Your task to perform on an android device: Add "alienware area 51" to the cart on costco, then select checkout. Image 0: 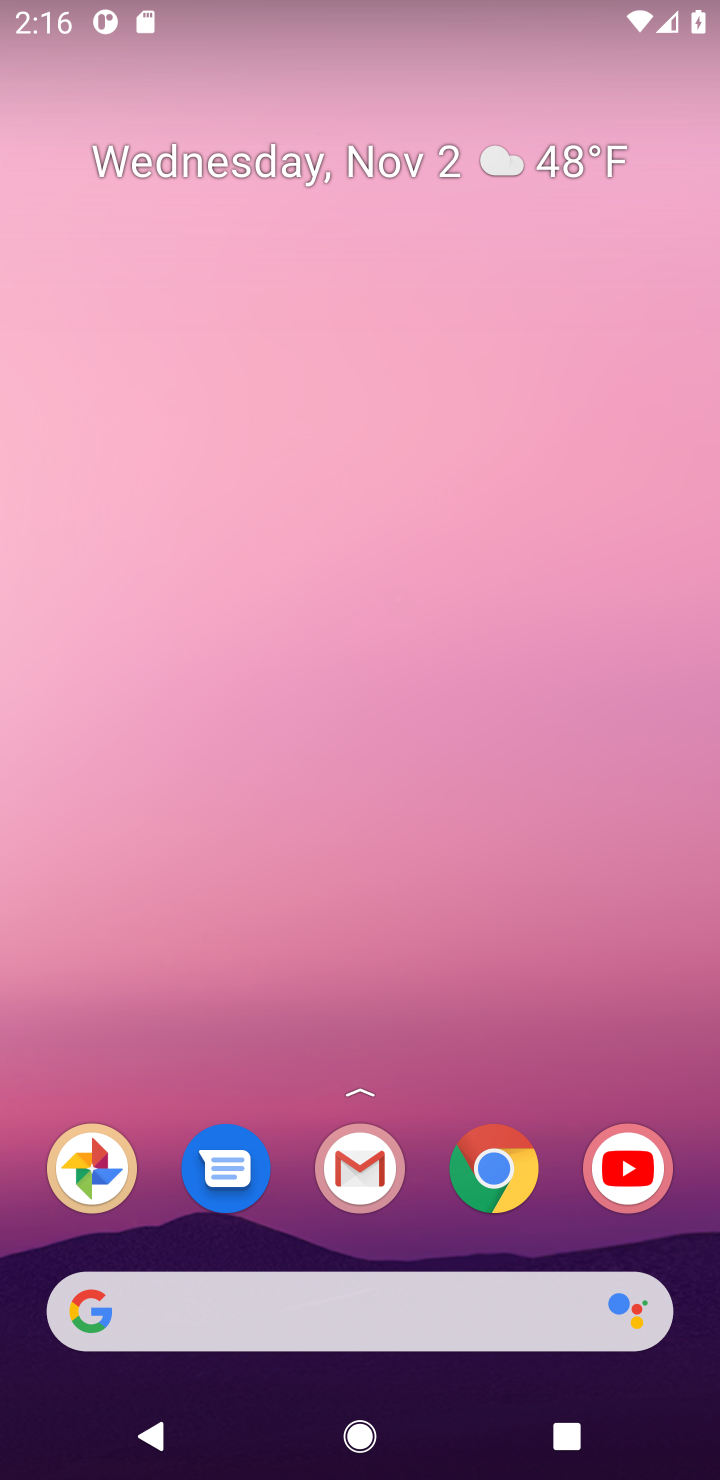
Step 0: drag from (371, 1128) to (441, 148)
Your task to perform on an android device: Add "alienware area 51" to the cart on costco, then select checkout. Image 1: 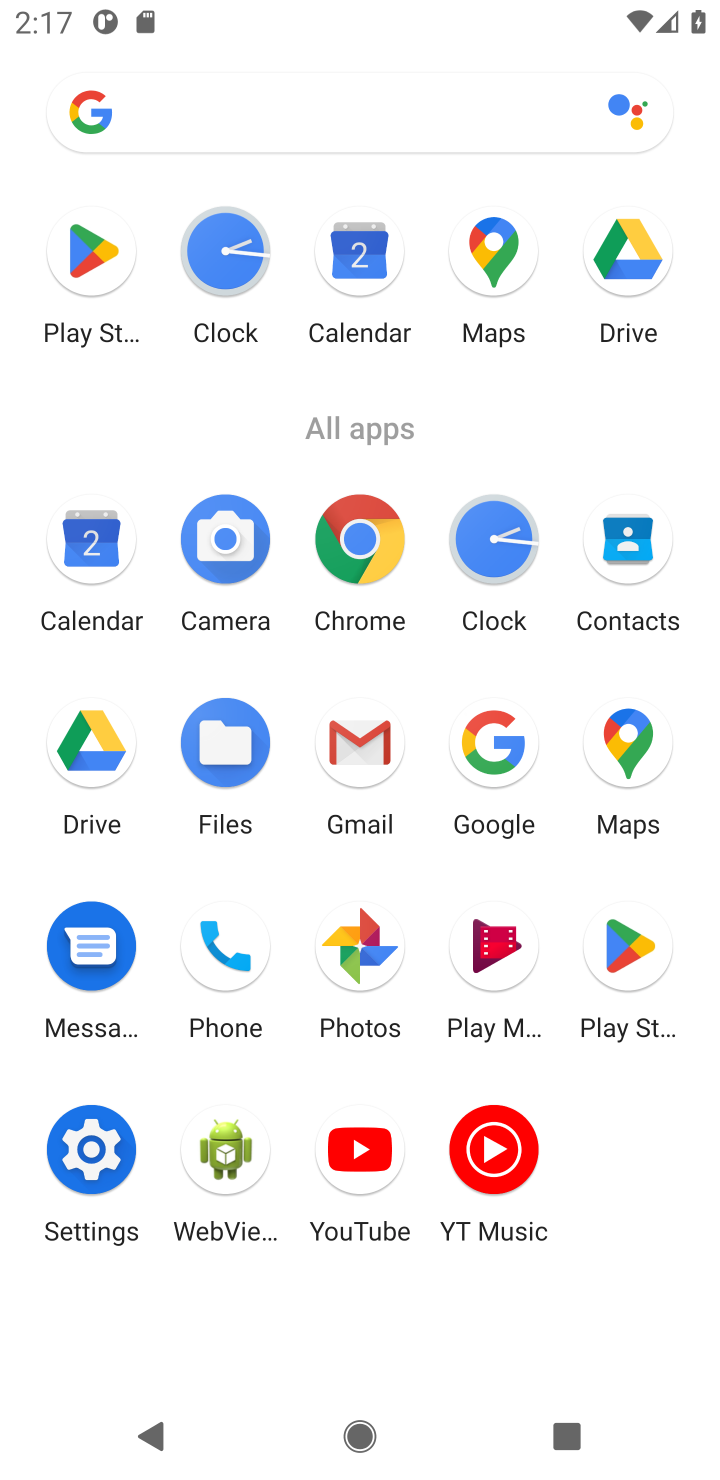
Step 1: click (487, 736)
Your task to perform on an android device: Add "alienware area 51" to the cart on costco, then select checkout. Image 2: 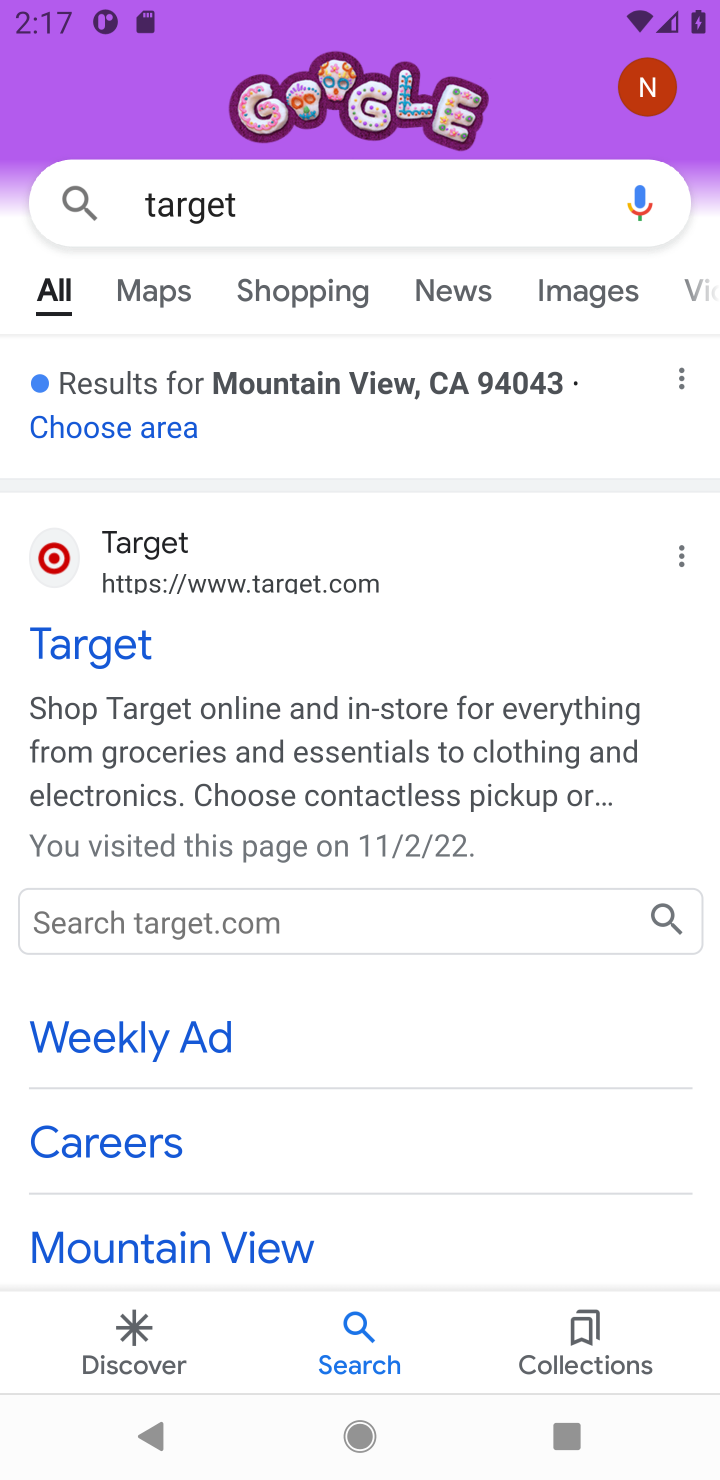
Step 2: click (424, 193)
Your task to perform on an android device: Add "alienware area 51" to the cart on costco, then select checkout. Image 3: 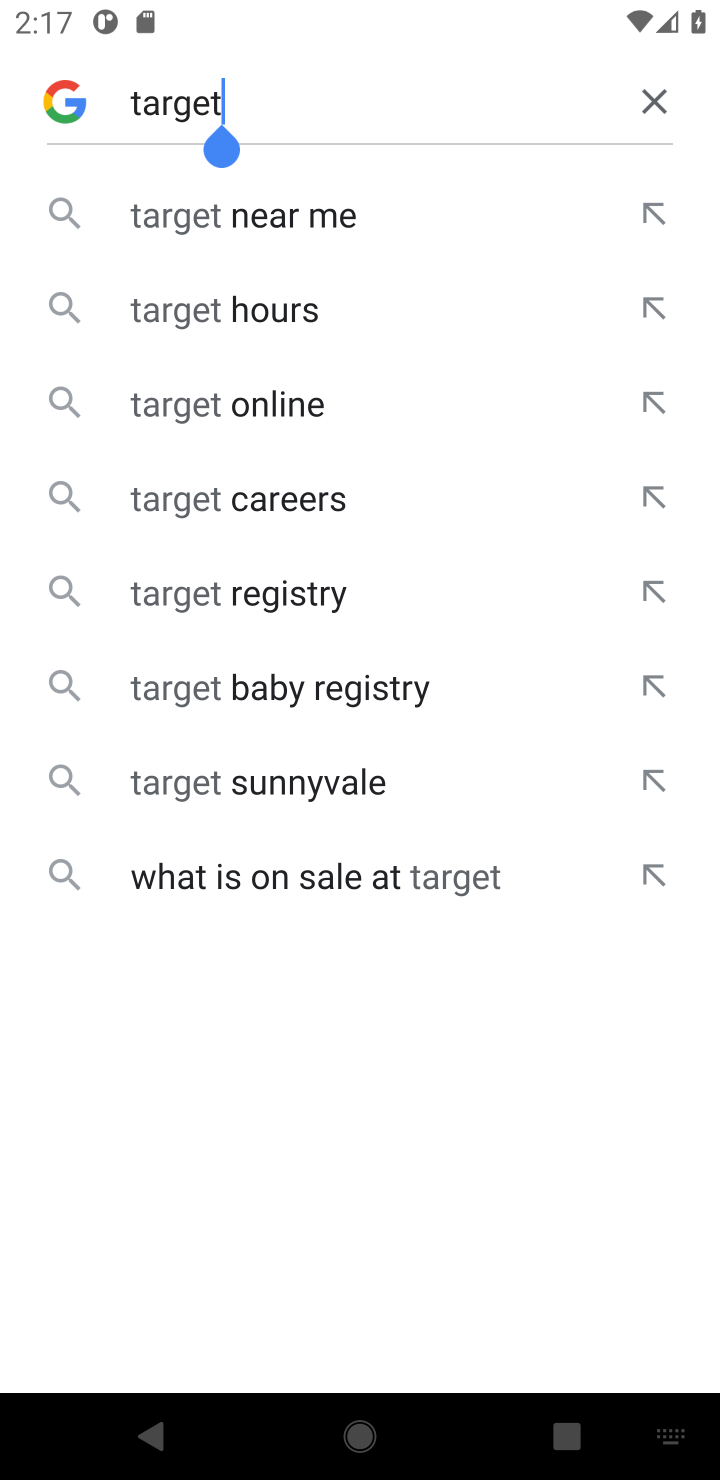
Step 3: click (661, 96)
Your task to perform on an android device: Add "alienware area 51" to the cart on costco, then select checkout. Image 4: 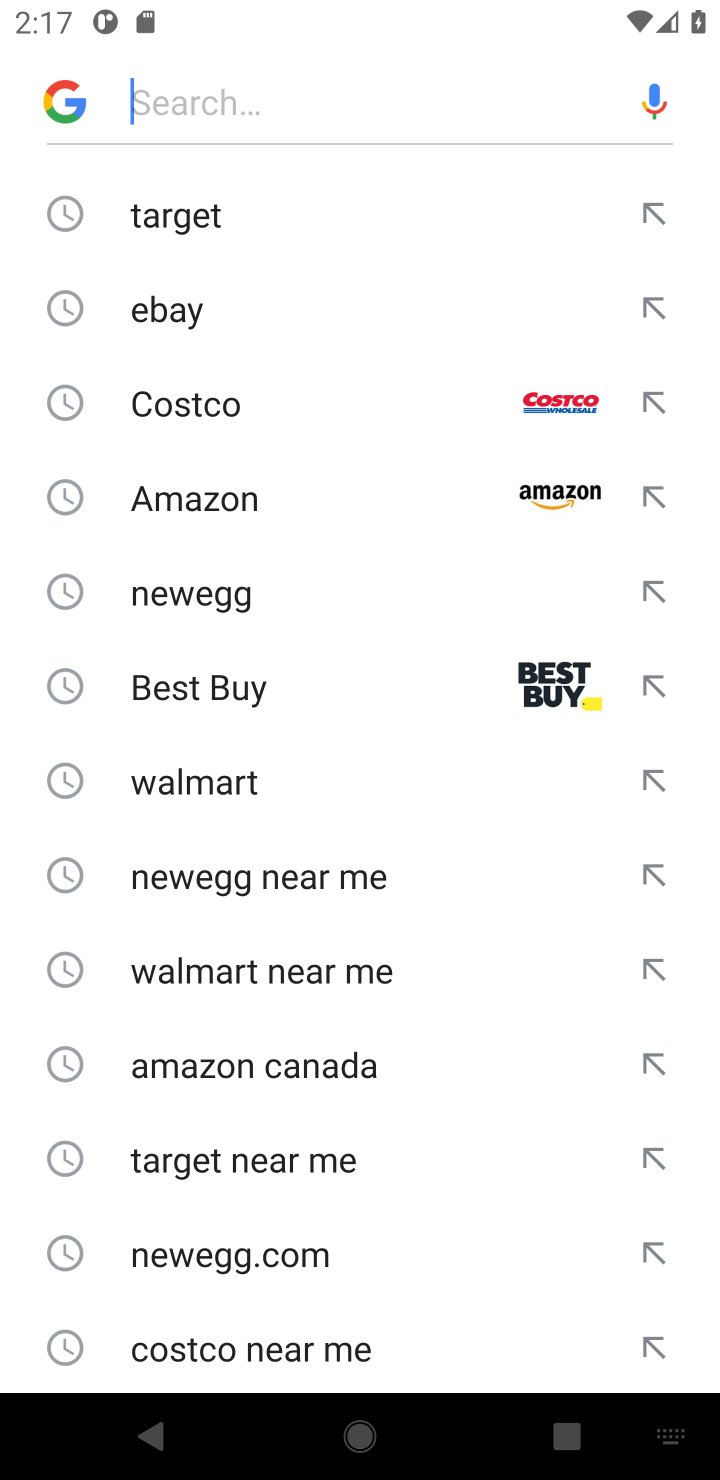
Step 4: click (405, 405)
Your task to perform on an android device: Add "alienware area 51" to the cart on costco, then select checkout. Image 5: 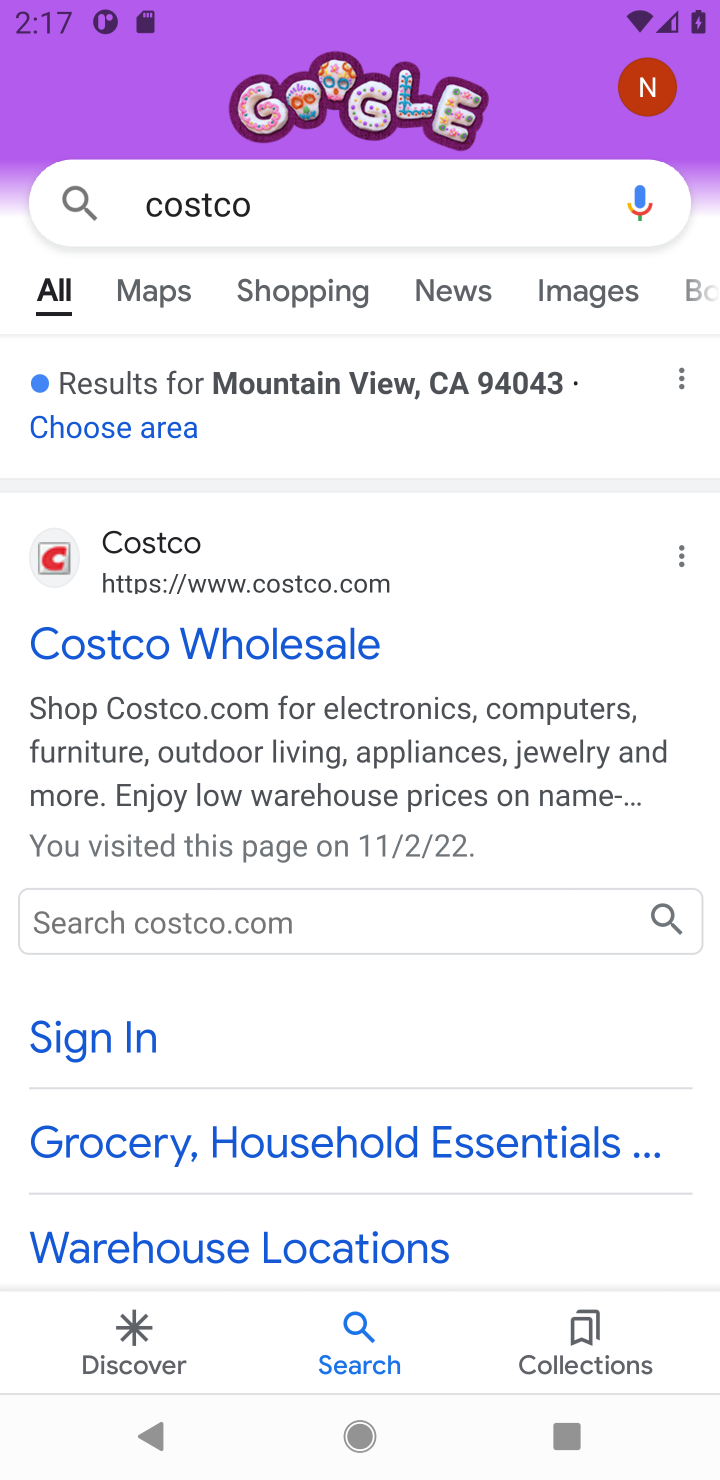
Step 5: click (154, 544)
Your task to perform on an android device: Add "alienware area 51" to the cart on costco, then select checkout. Image 6: 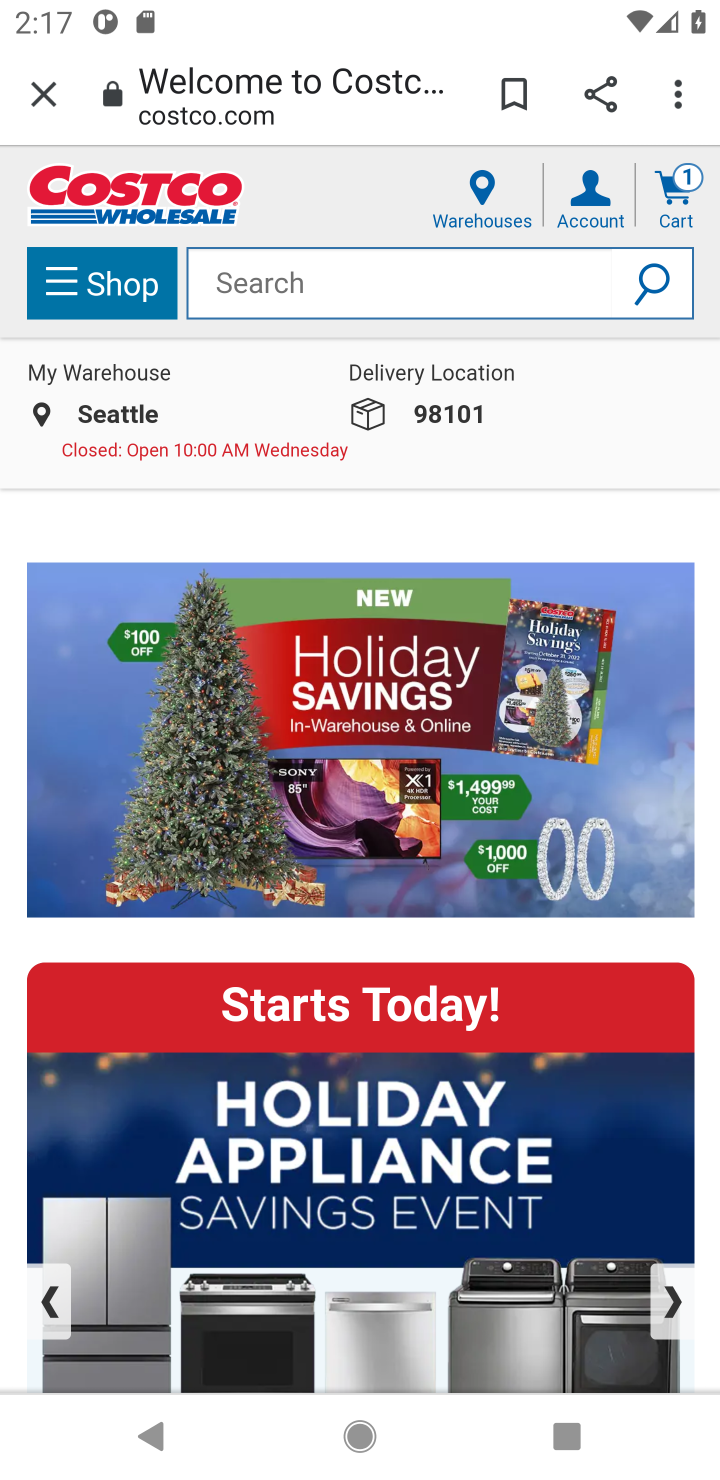
Step 6: click (442, 288)
Your task to perform on an android device: Add "alienware area 51" to the cart on costco, then select checkout. Image 7: 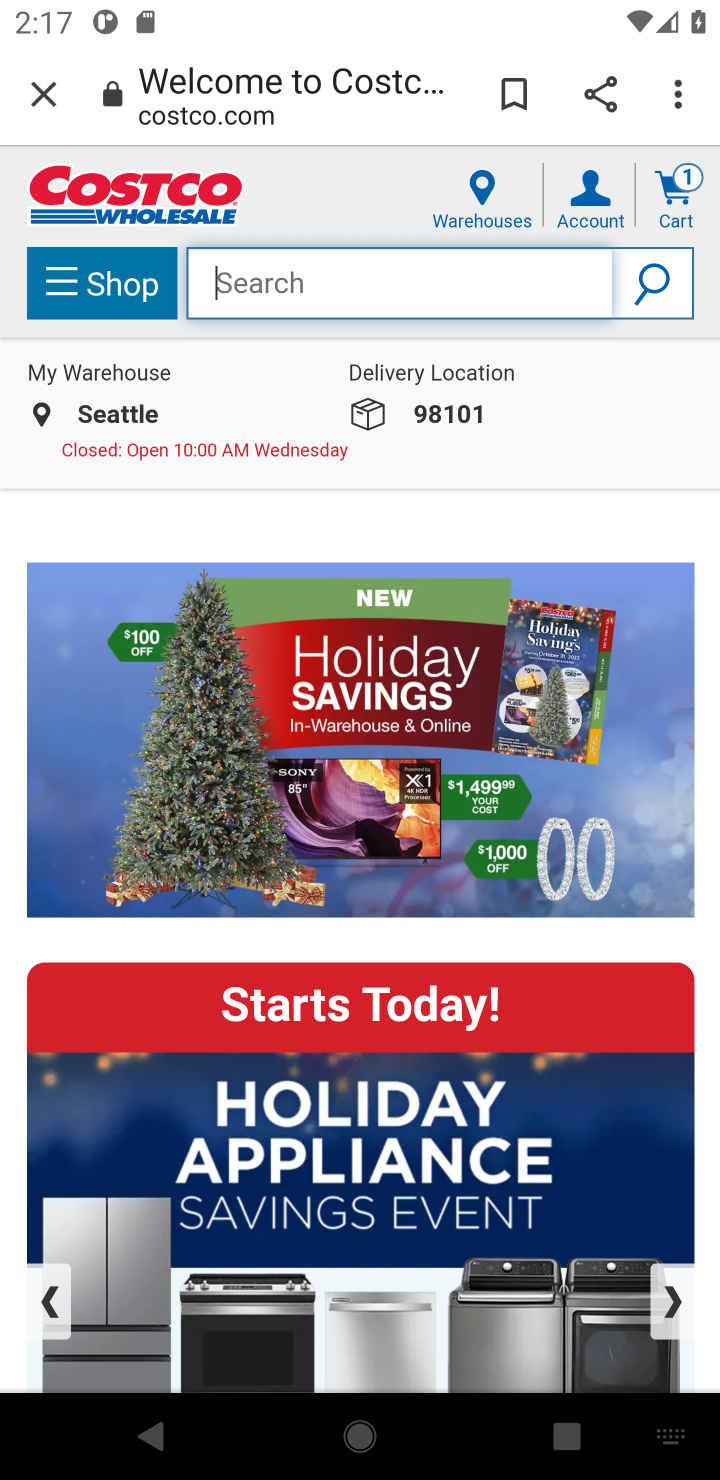
Step 7: click (579, 289)
Your task to perform on an android device: Add "alienware area 51" to the cart on costco, then select checkout. Image 8: 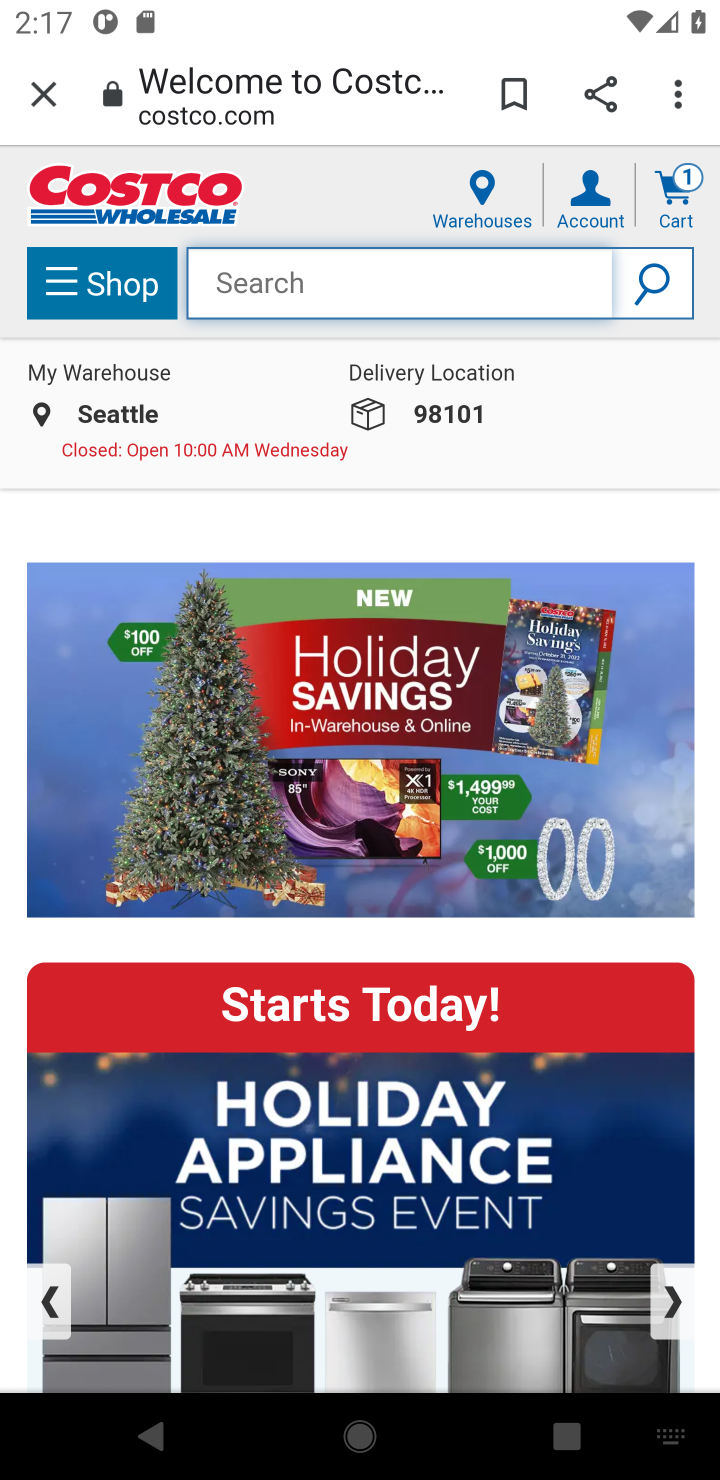
Step 8: type "alienware area 51"
Your task to perform on an android device: Add "alienware area 51" to the cart on costco, then select checkout. Image 9: 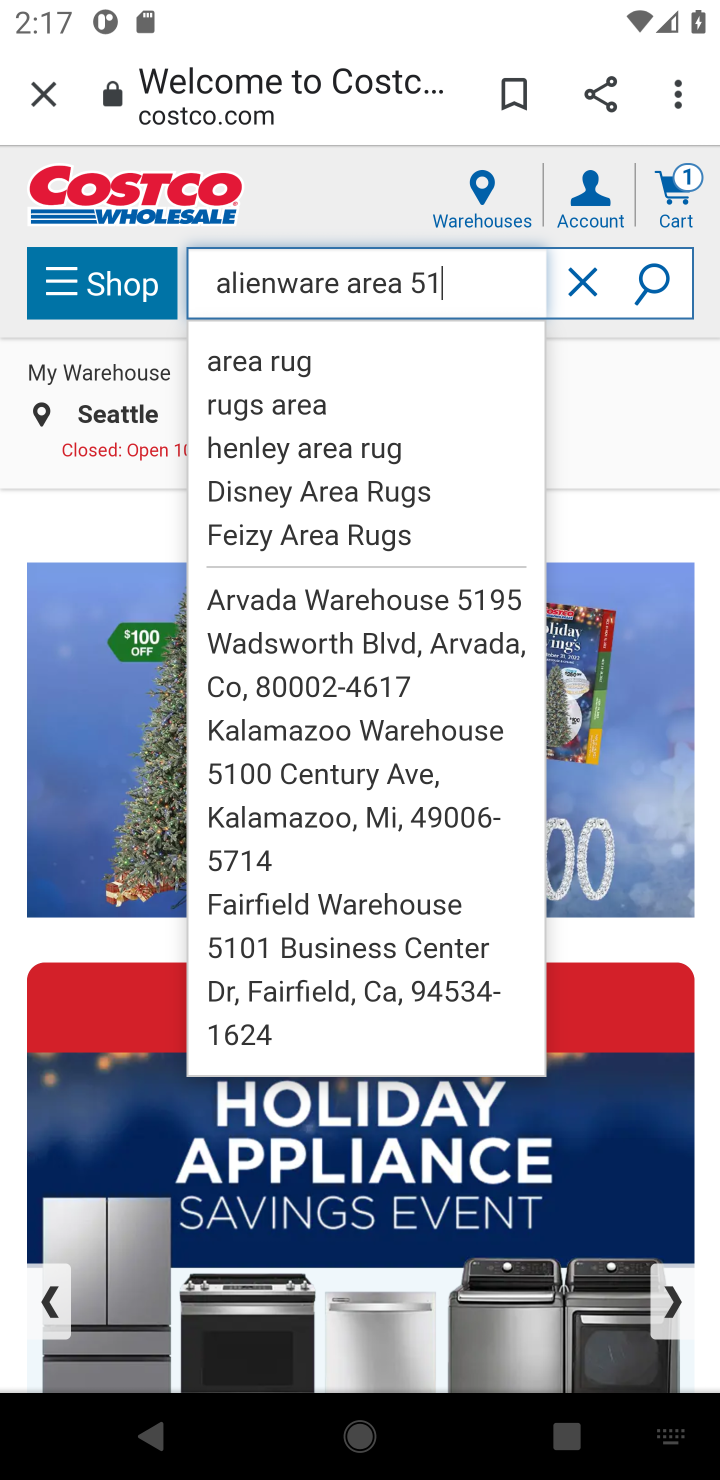
Step 9: click (661, 299)
Your task to perform on an android device: Add "alienware area 51" to the cart on costco, then select checkout. Image 10: 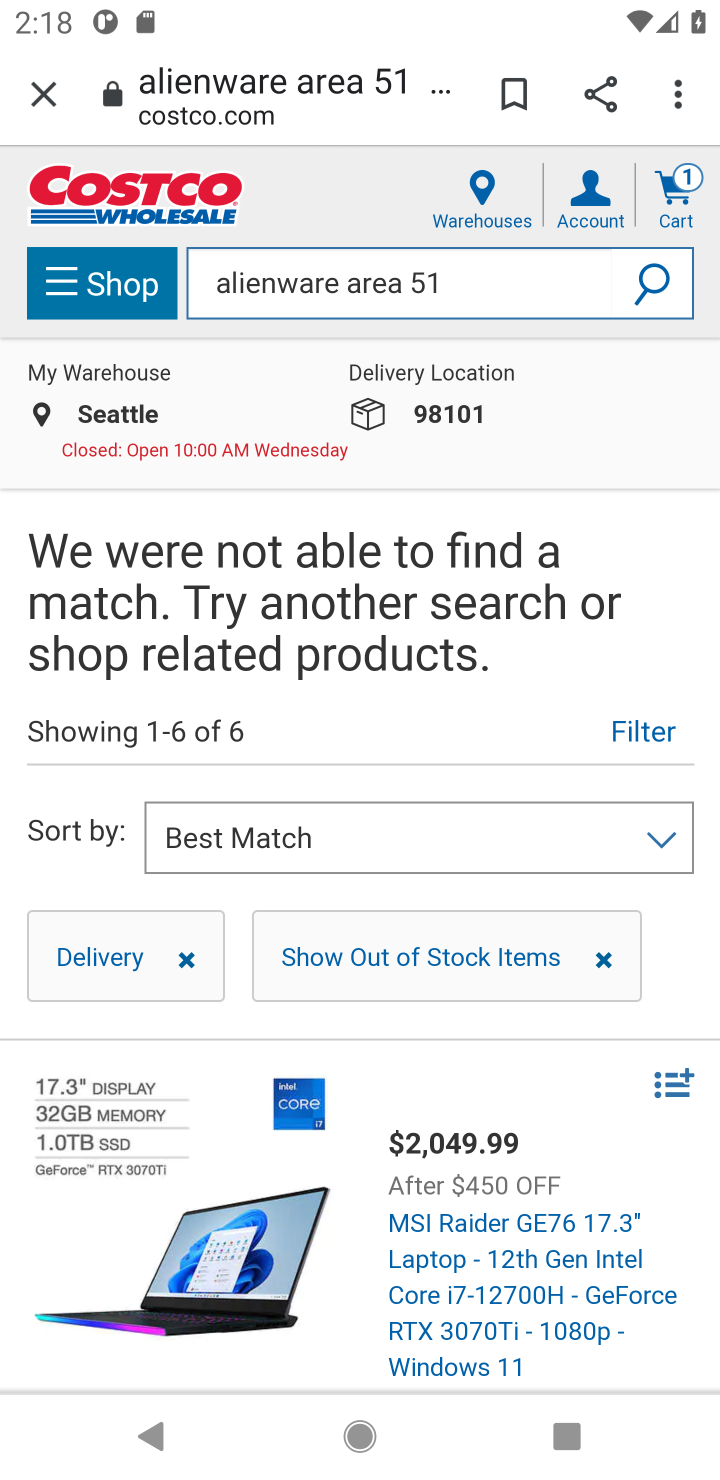
Step 10: click (569, 1261)
Your task to perform on an android device: Add "alienware area 51" to the cart on costco, then select checkout. Image 11: 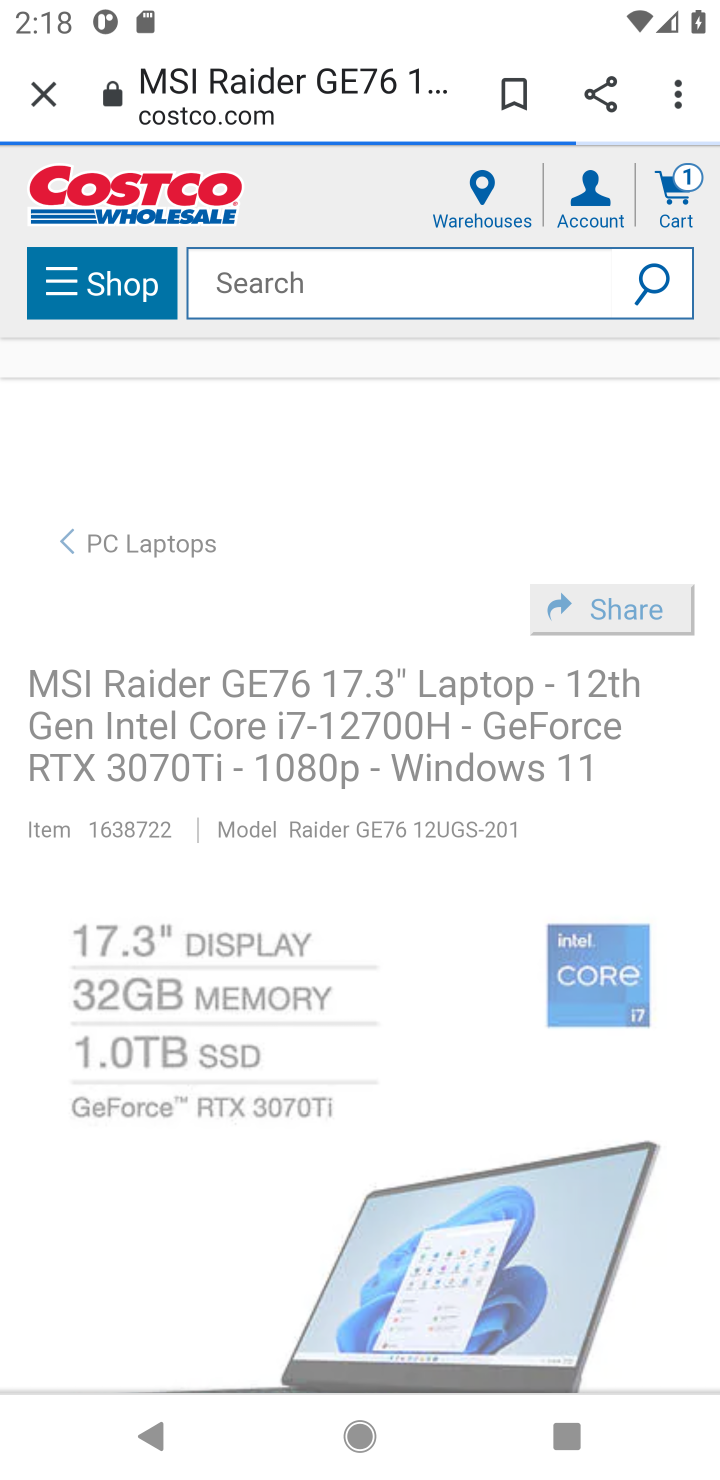
Step 11: drag from (447, 1201) to (463, 793)
Your task to perform on an android device: Add "alienware area 51" to the cart on costco, then select checkout. Image 12: 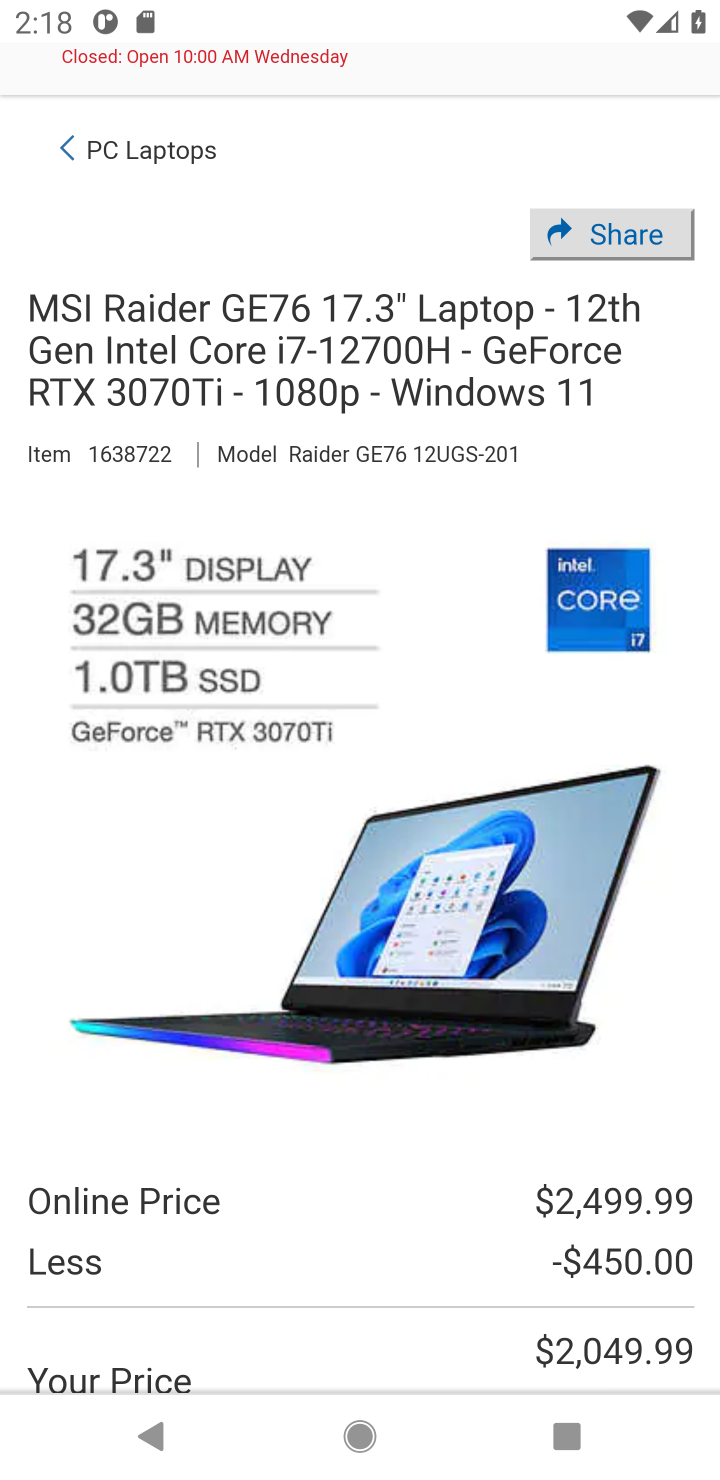
Step 12: drag from (428, 1105) to (428, 683)
Your task to perform on an android device: Add "alienware area 51" to the cart on costco, then select checkout. Image 13: 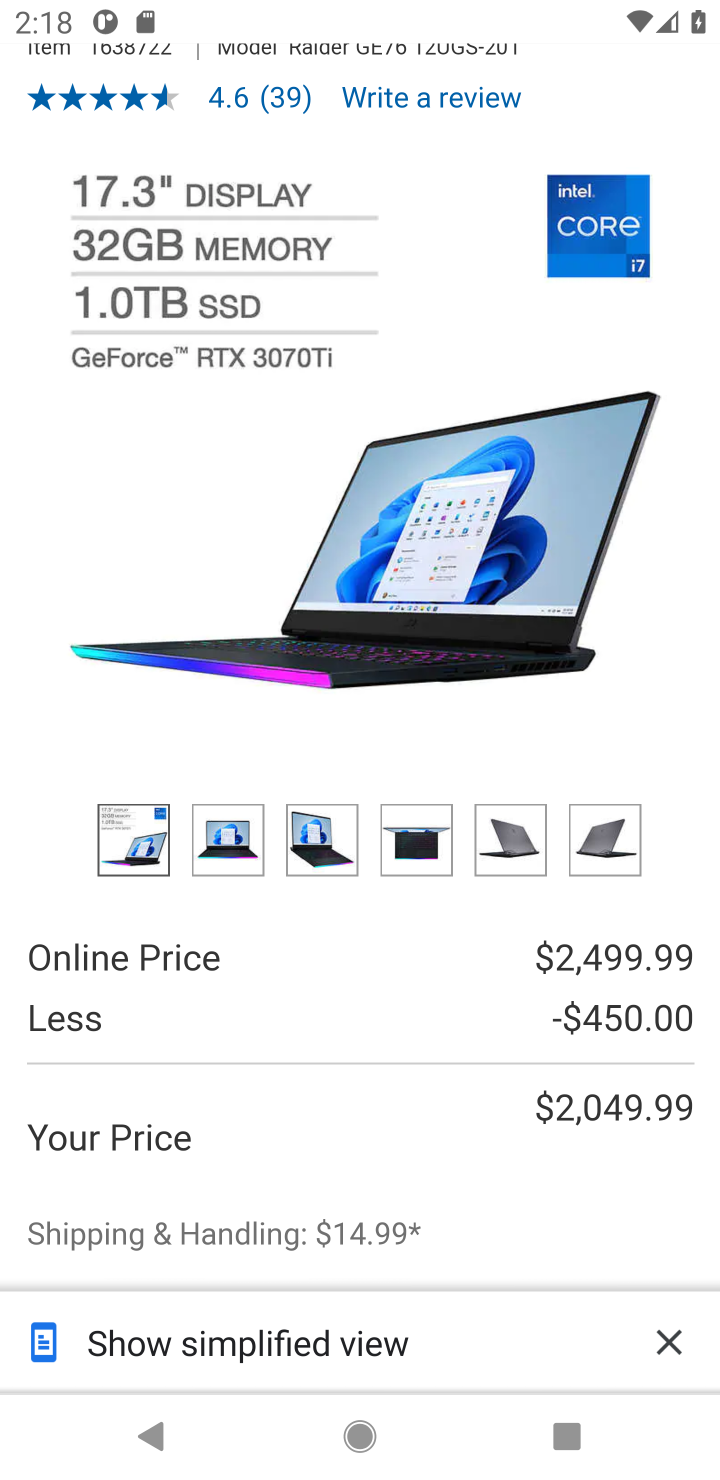
Step 13: drag from (274, 1111) to (285, 770)
Your task to perform on an android device: Add "alienware area 51" to the cart on costco, then select checkout. Image 14: 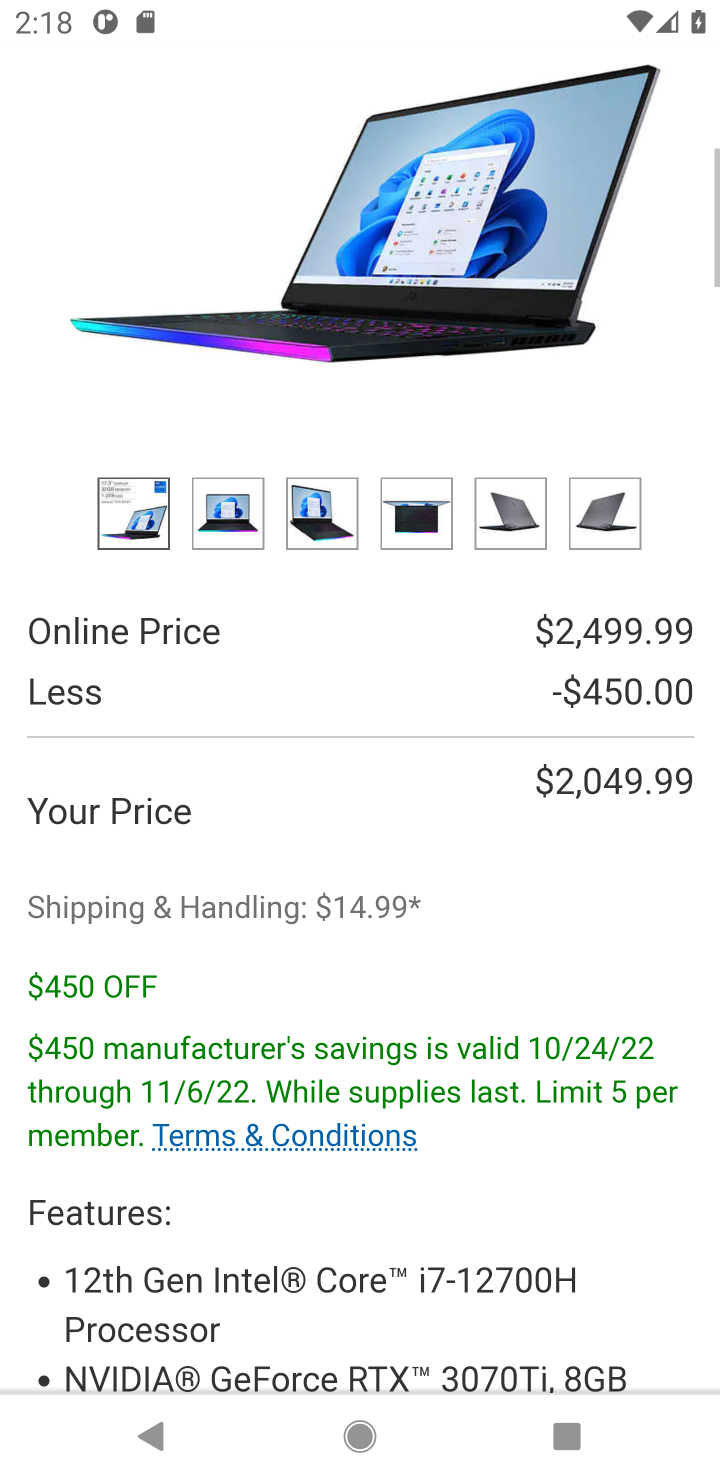
Step 14: click (334, 675)
Your task to perform on an android device: Add "alienware area 51" to the cart on costco, then select checkout. Image 15: 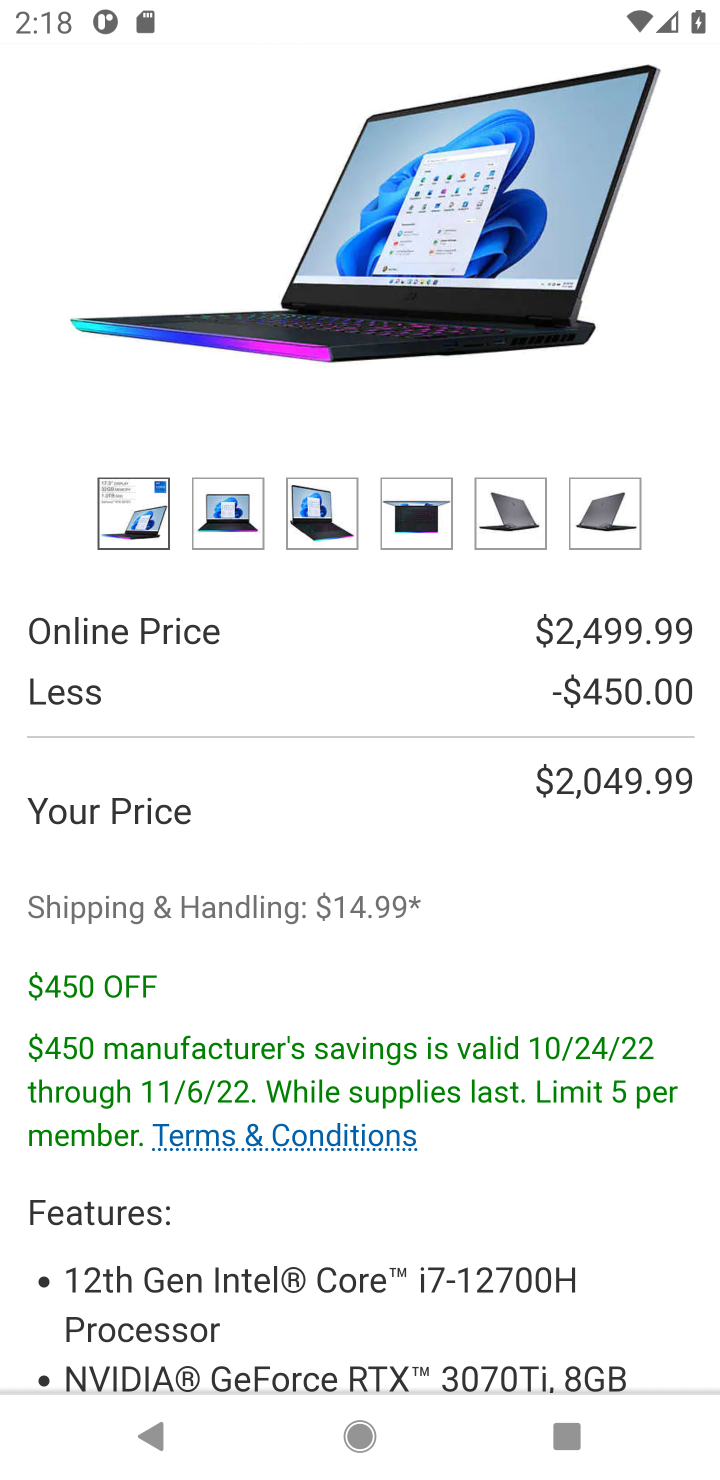
Step 15: drag from (338, 1151) to (393, 682)
Your task to perform on an android device: Add "alienware area 51" to the cart on costco, then select checkout. Image 16: 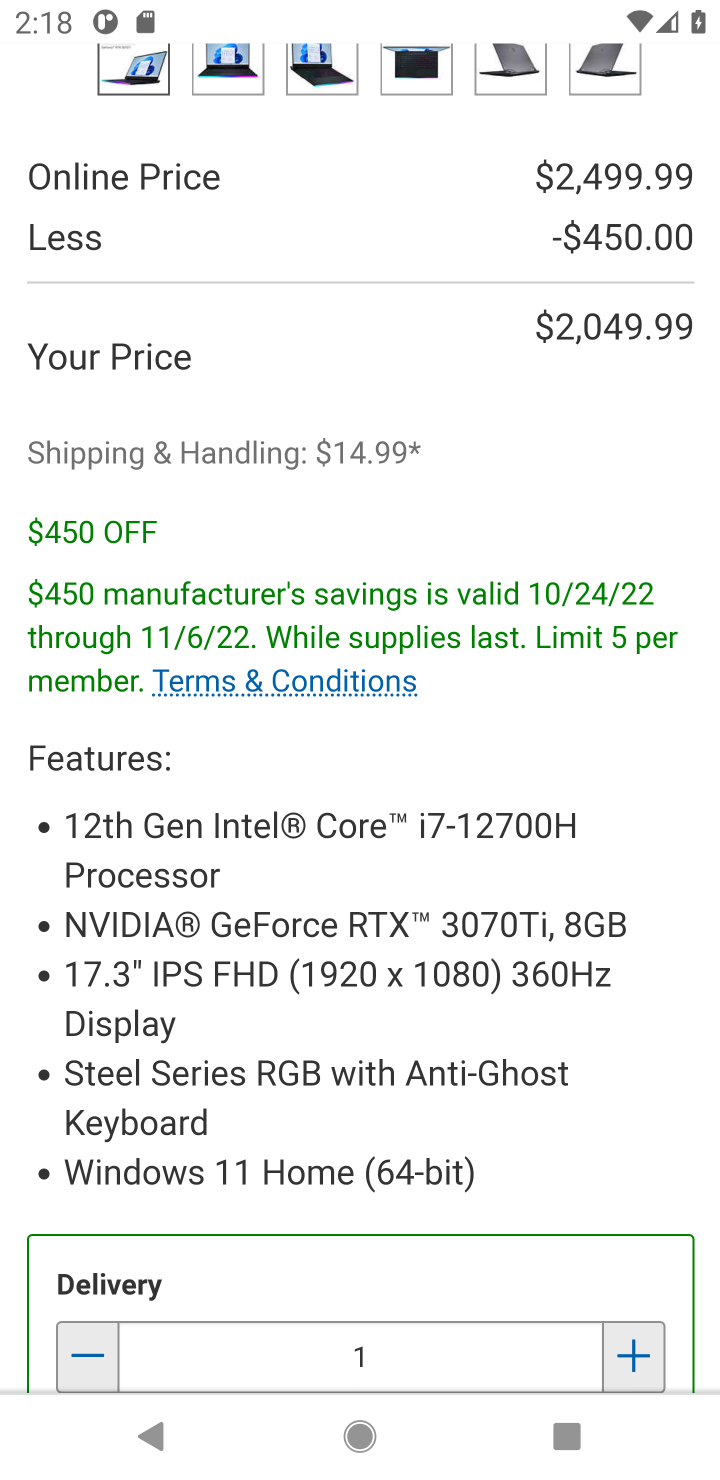
Step 16: drag from (477, 1098) to (477, 678)
Your task to perform on an android device: Add "alienware area 51" to the cart on costco, then select checkout. Image 17: 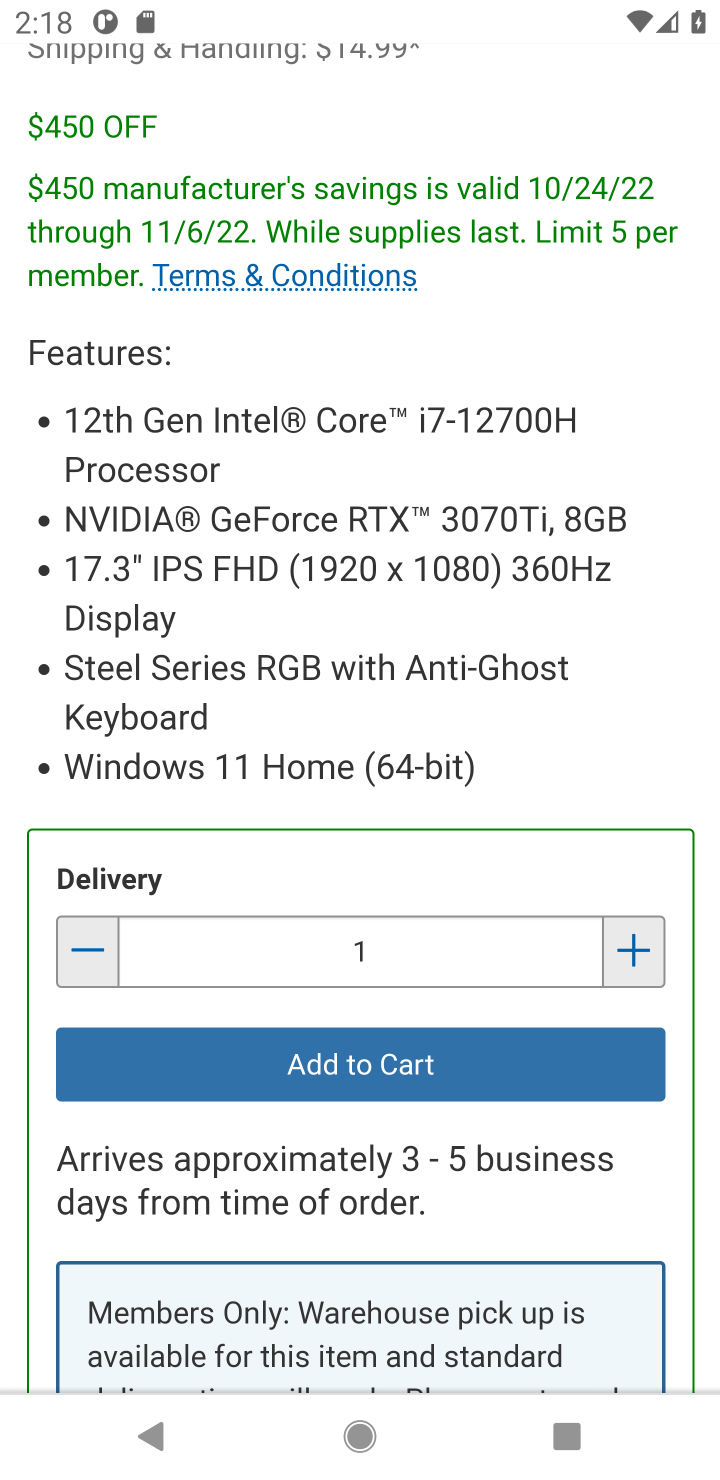
Step 17: click (348, 1184)
Your task to perform on an android device: Add "alienware area 51" to the cart on costco, then select checkout. Image 18: 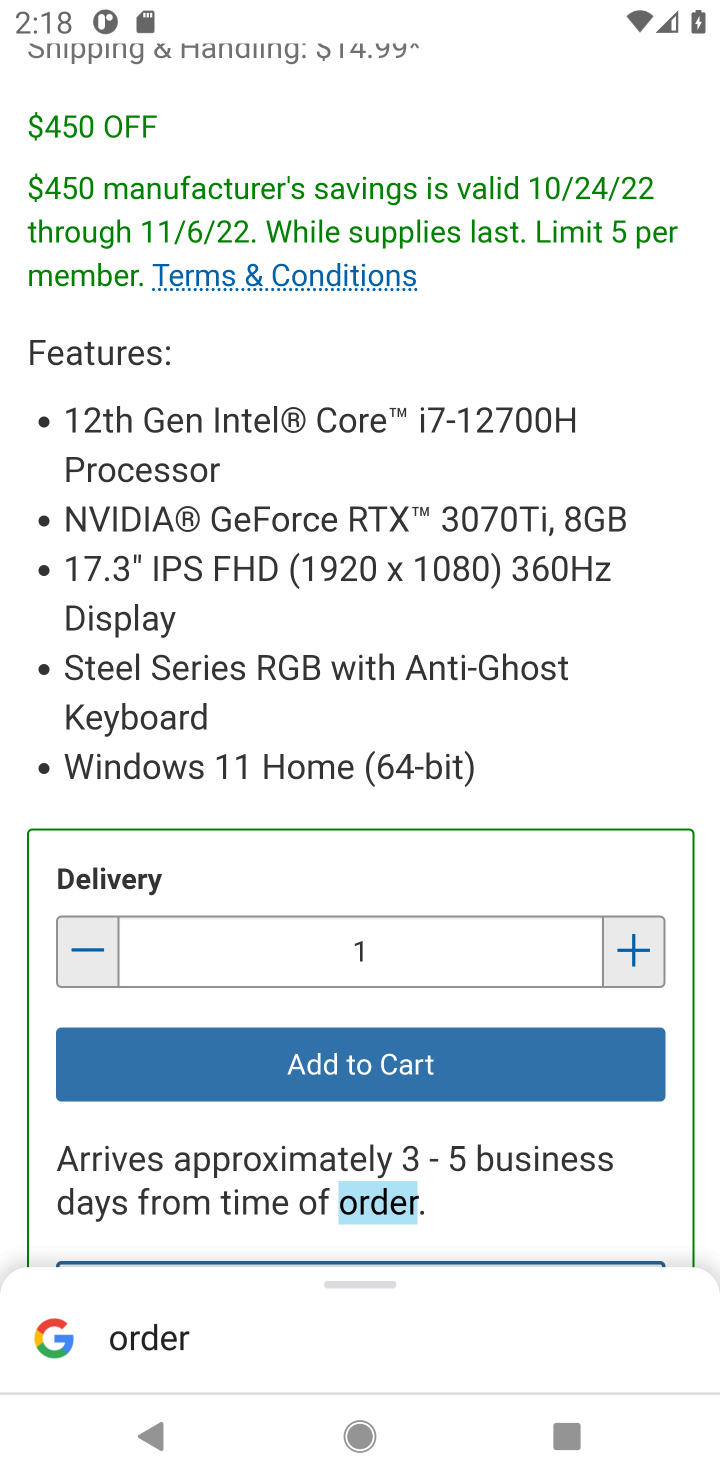
Step 18: click (350, 1057)
Your task to perform on an android device: Add "alienware area 51" to the cart on costco, then select checkout. Image 19: 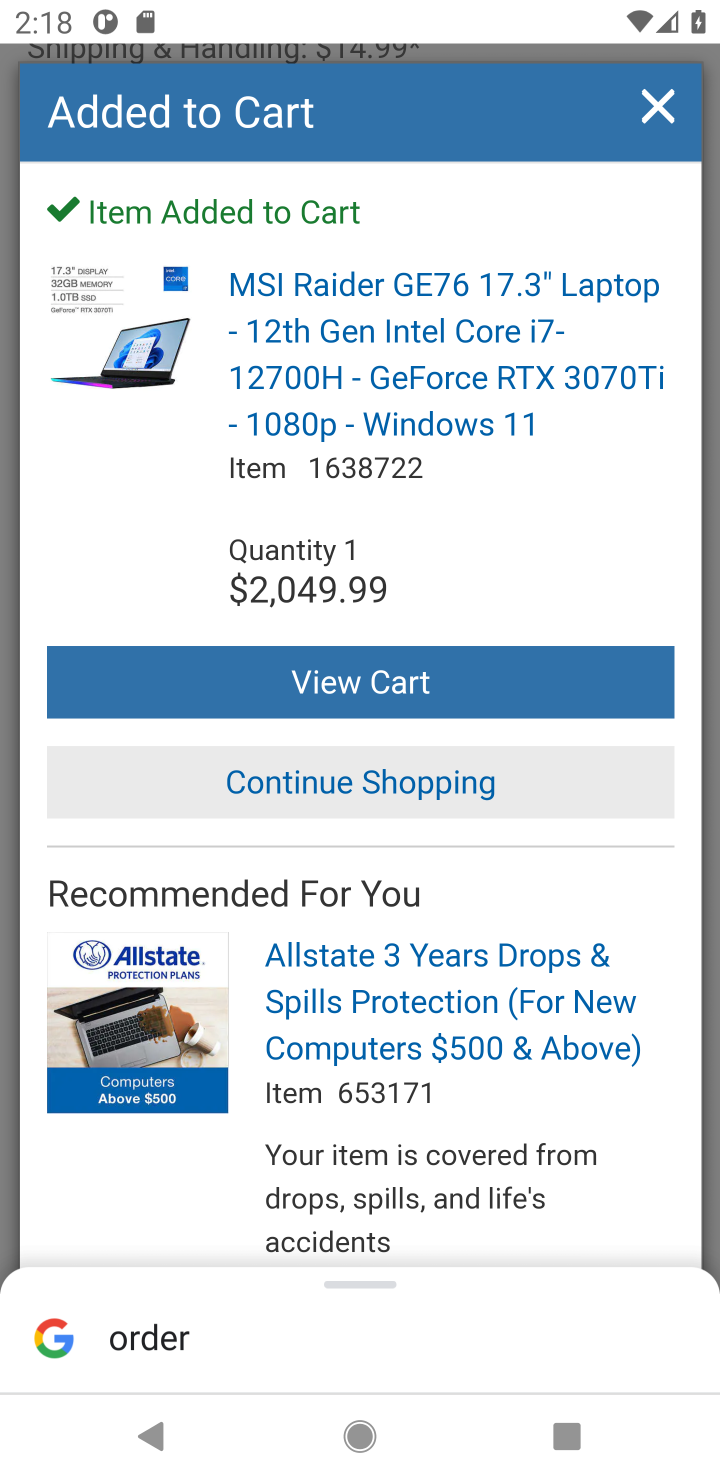
Step 19: click (368, 680)
Your task to perform on an android device: Add "alienware area 51" to the cart on costco, then select checkout. Image 20: 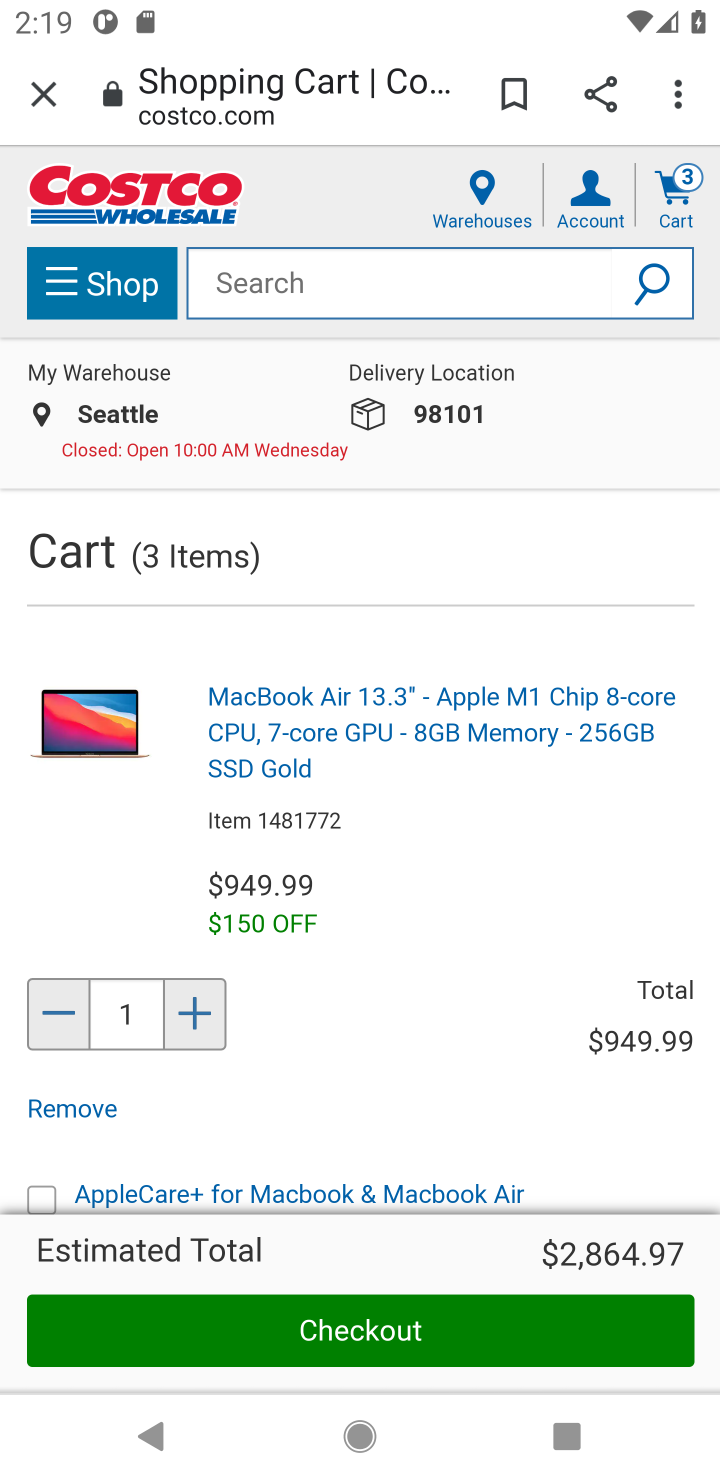
Step 20: click (356, 1325)
Your task to perform on an android device: Add "alienware area 51" to the cart on costco, then select checkout. Image 21: 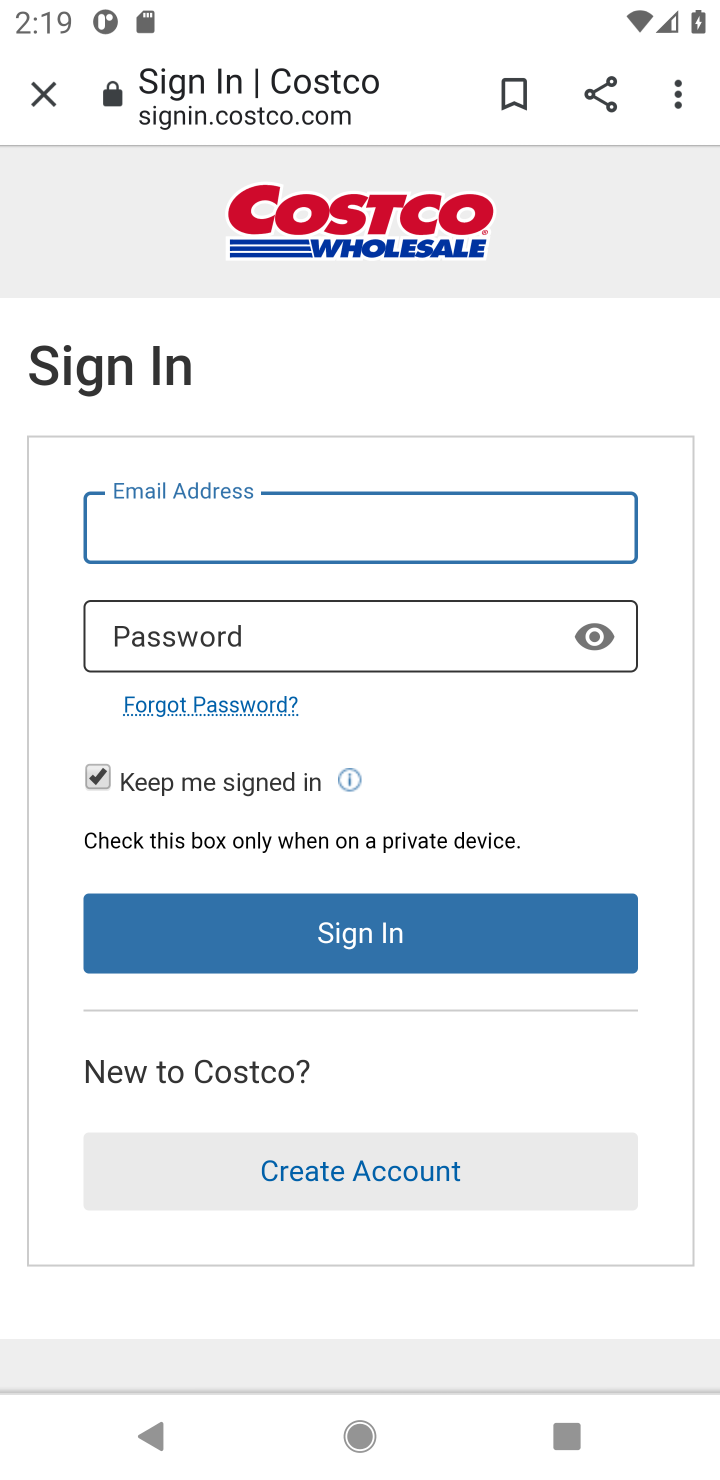
Step 21: task complete